Your task to perform on an android device: read, delete, or share a saved page in the chrome app Image 0: 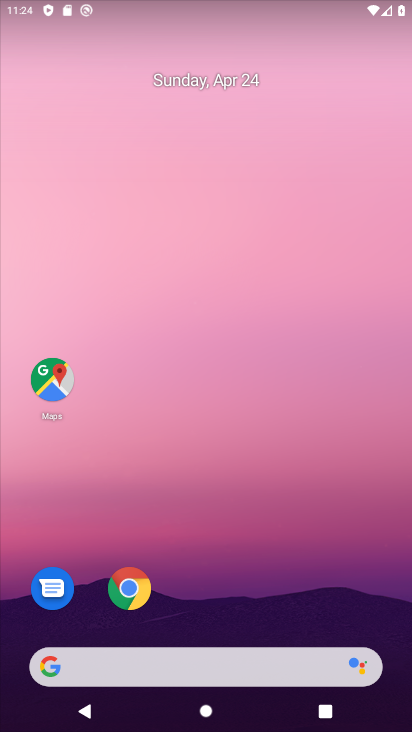
Step 0: drag from (179, 647) to (345, 42)
Your task to perform on an android device: read, delete, or share a saved page in the chrome app Image 1: 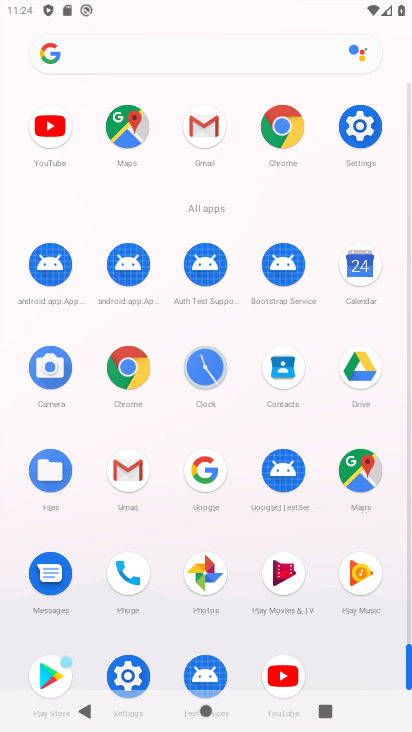
Step 1: click (131, 387)
Your task to perform on an android device: read, delete, or share a saved page in the chrome app Image 2: 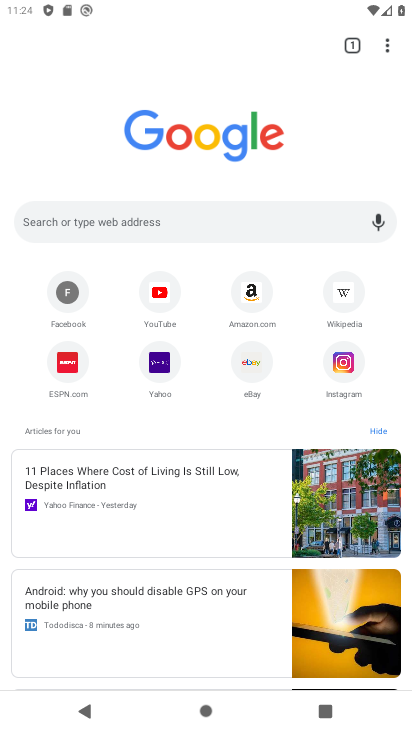
Step 2: drag from (396, 54) to (278, 307)
Your task to perform on an android device: read, delete, or share a saved page in the chrome app Image 3: 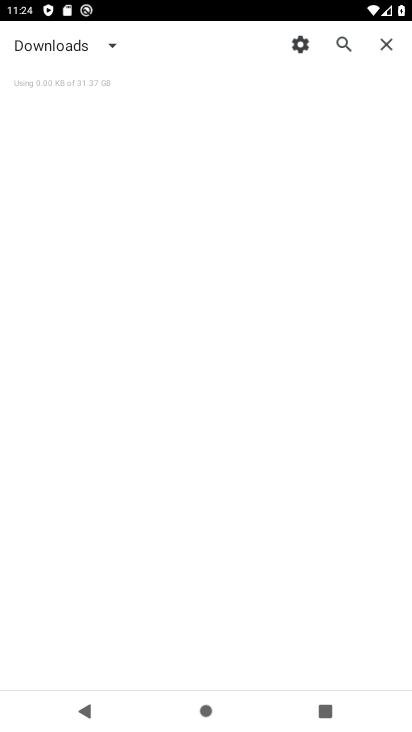
Step 3: click (101, 50)
Your task to perform on an android device: read, delete, or share a saved page in the chrome app Image 4: 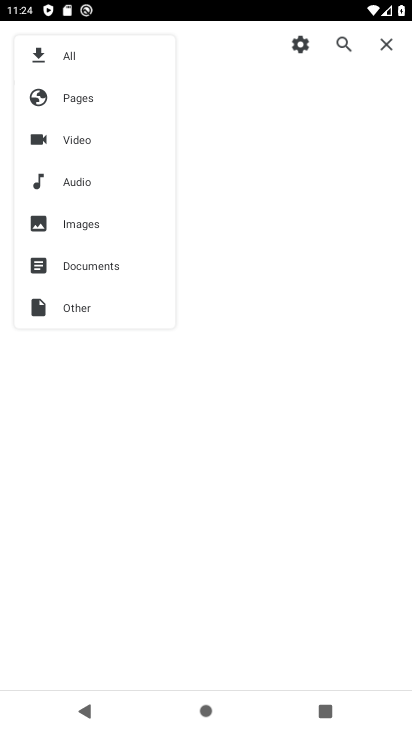
Step 4: click (120, 110)
Your task to perform on an android device: read, delete, or share a saved page in the chrome app Image 5: 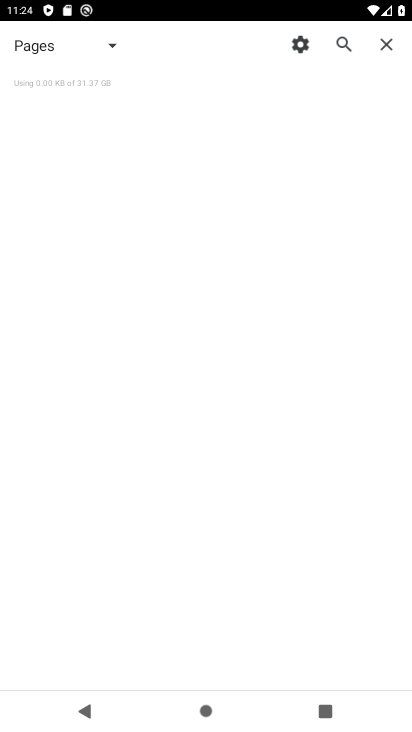
Step 5: task complete